Your task to perform on an android device: Search for pizza restaurants on Maps Image 0: 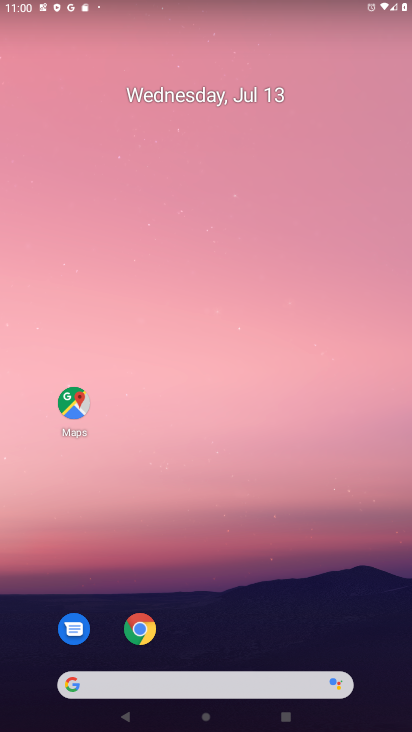
Step 0: click (68, 421)
Your task to perform on an android device: Search for pizza restaurants on Maps Image 1: 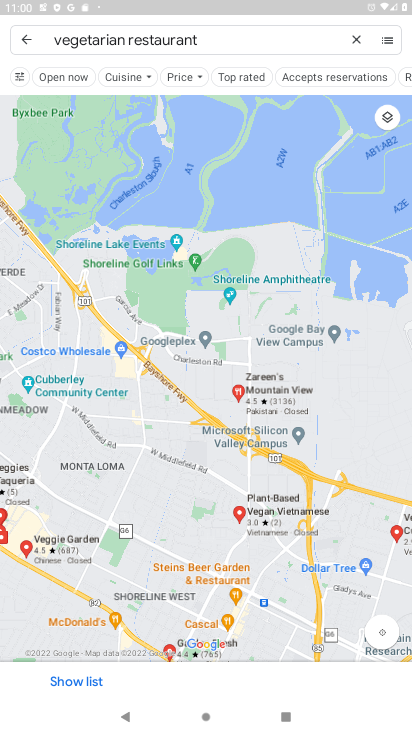
Step 1: click (226, 30)
Your task to perform on an android device: Search for pizza restaurants on Maps Image 2: 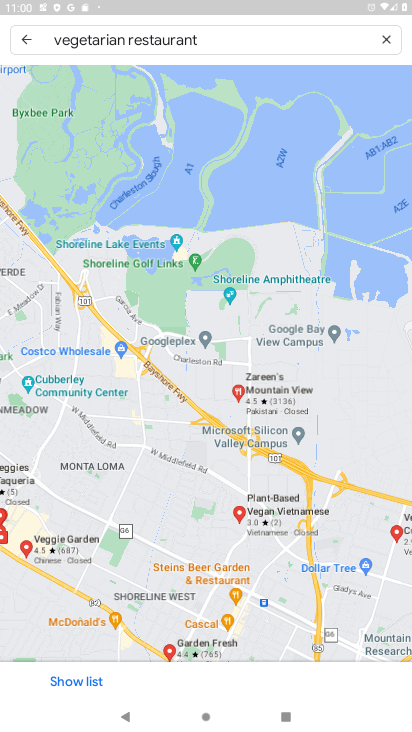
Step 2: click (361, 38)
Your task to perform on an android device: Search for pizza restaurants on Maps Image 3: 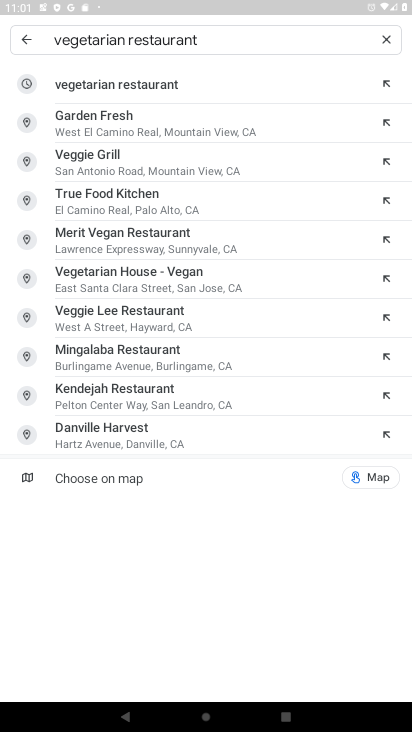
Step 3: click (381, 38)
Your task to perform on an android device: Search for pizza restaurants on Maps Image 4: 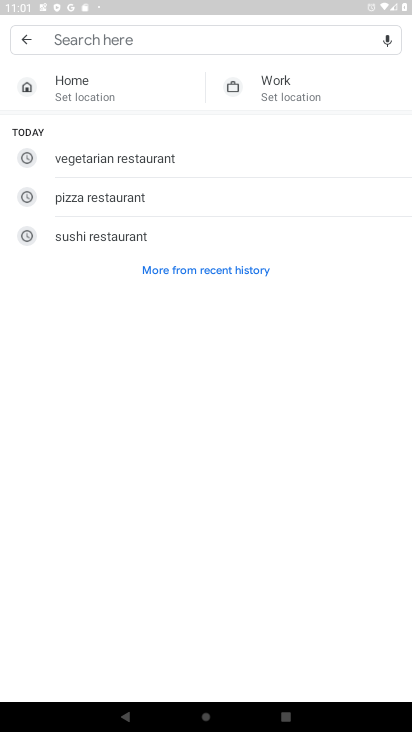
Step 4: click (281, 197)
Your task to perform on an android device: Search for pizza restaurants on Maps Image 5: 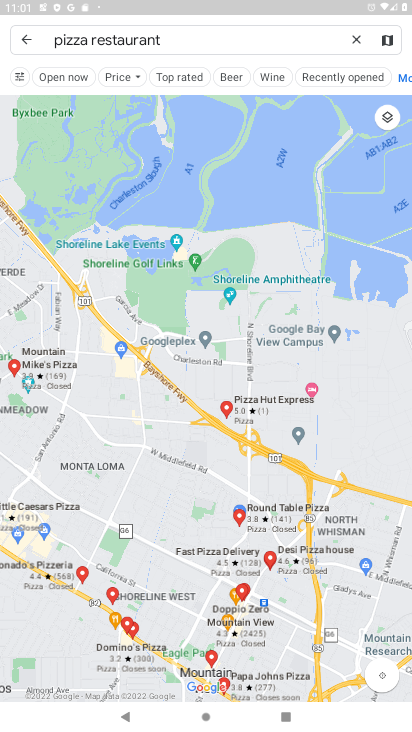
Step 5: task complete